Your task to perform on an android device: open wifi settings Image 0: 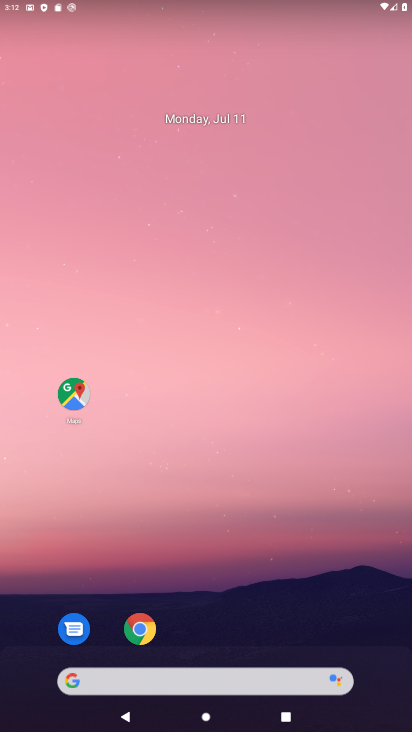
Step 0: drag from (213, 679) to (300, 74)
Your task to perform on an android device: open wifi settings Image 1: 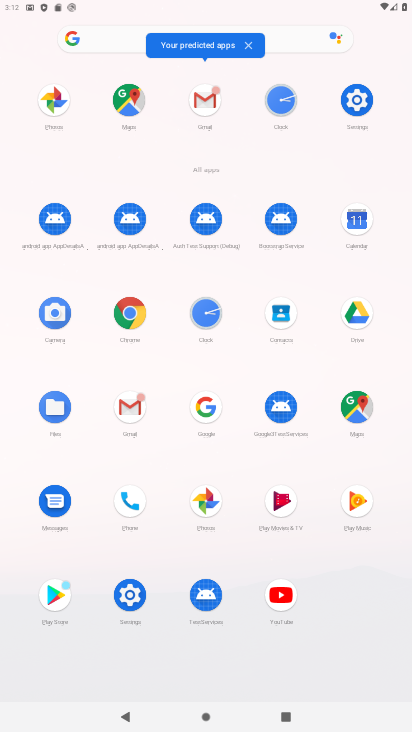
Step 1: click (353, 94)
Your task to perform on an android device: open wifi settings Image 2: 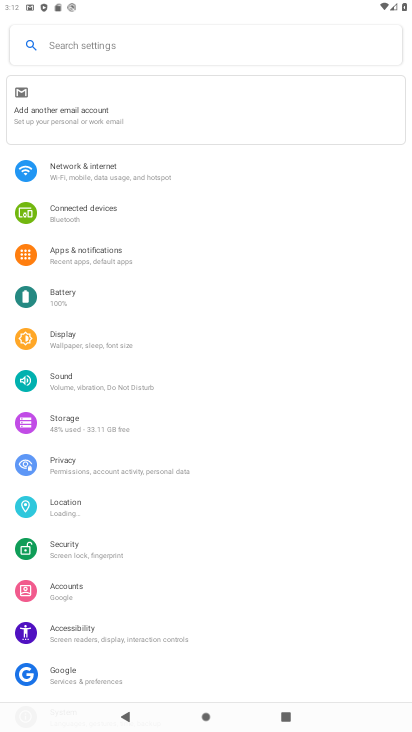
Step 2: click (85, 163)
Your task to perform on an android device: open wifi settings Image 3: 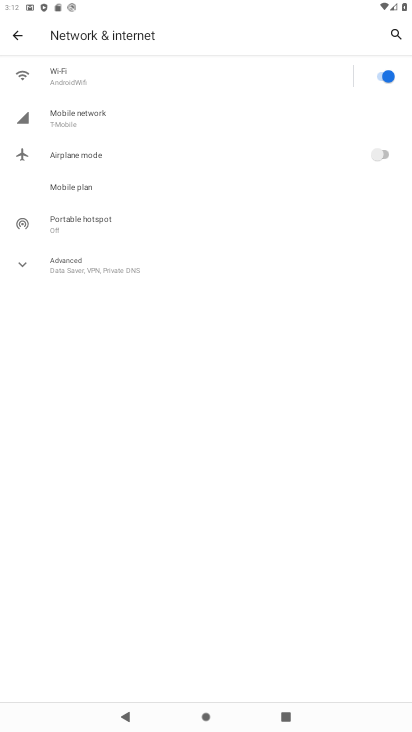
Step 3: click (95, 74)
Your task to perform on an android device: open wifi settings Image 4: 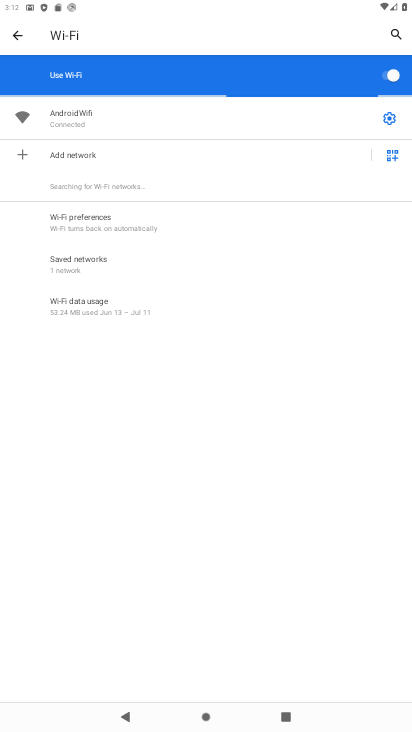
Step 4: task complete